Your task to perform on an android device: change keyboard looks Image 0: 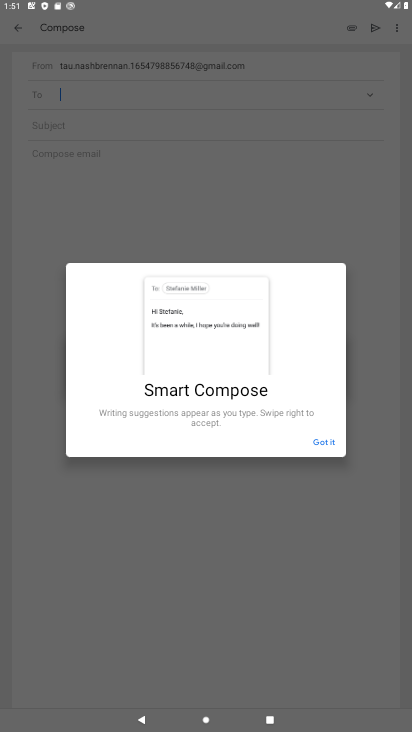
Step 0: press home button
Your task to perform on an android device: change keyboard looks Image 1: 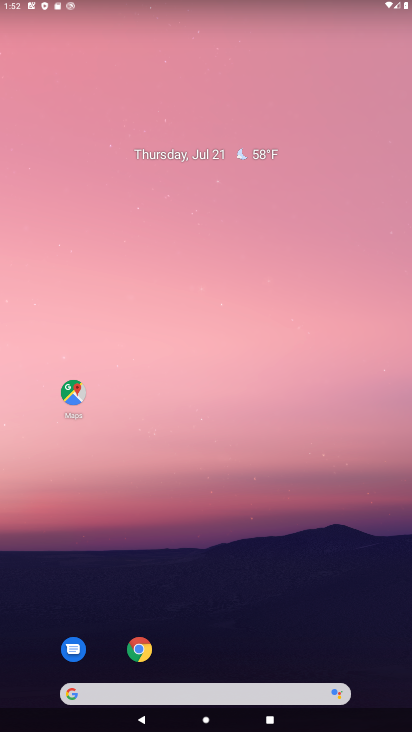
Step 1: drag from (288, 670) to (243, 436)
Your task to perform on an android device: change keyboard looks Image 2: 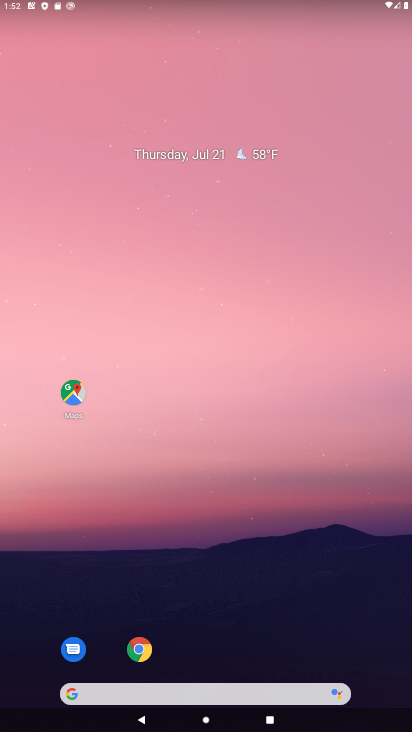
Step 2: drag from (198, 620) to (176, 232)
Your task to perform on an android device: change keyboard looks Image 3: 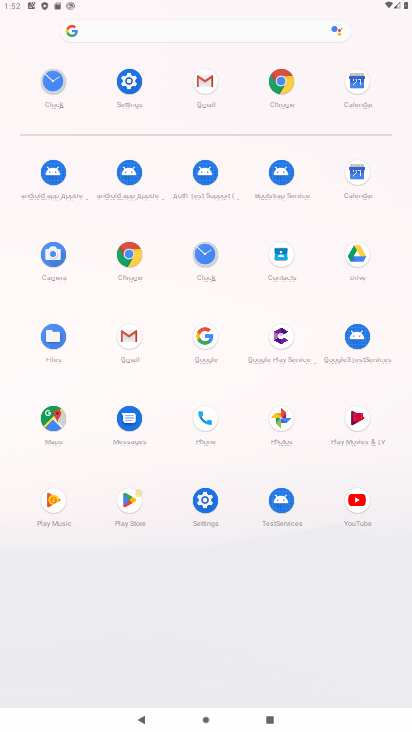
Step 3: click (120, 83)
Your task to perform on an android device: change keyboard looks Image 4: 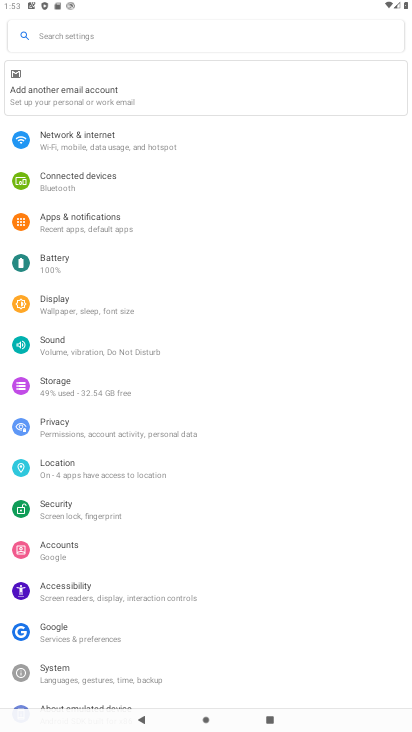
Step 4: click (104, 674)
Your task to perform on an android device: change keyboard looks Image 5: 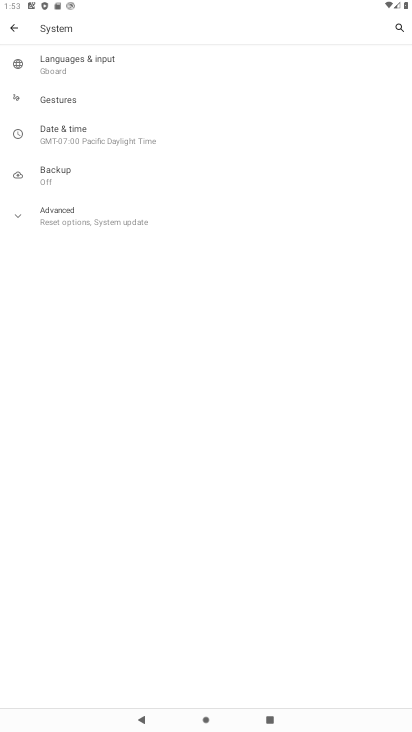
Step 5: click (78, 75)
Your task to perform on an android device: change keyboard looks Image 6: 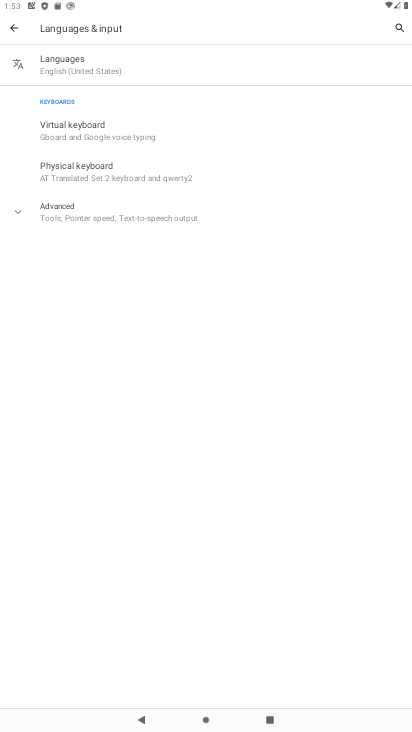
Step 6: click (110, 145)
Your task to perform on an android device: change keyboard looks Image 7: 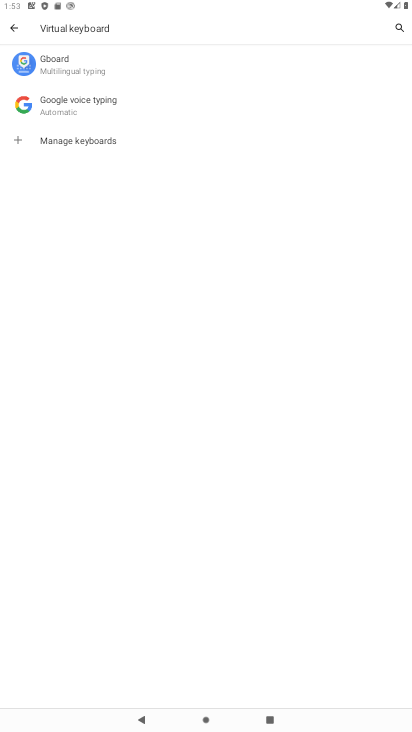
Step 7: click (124, 78)
Your task to perform on an android device: change keyboard looks Image 8: 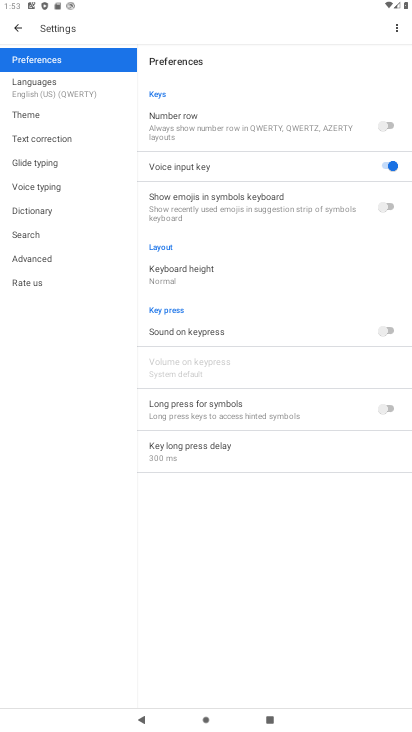
Step 8: task complete